Your task to perform on an android device: allow cookies in the chrome app Image 0: 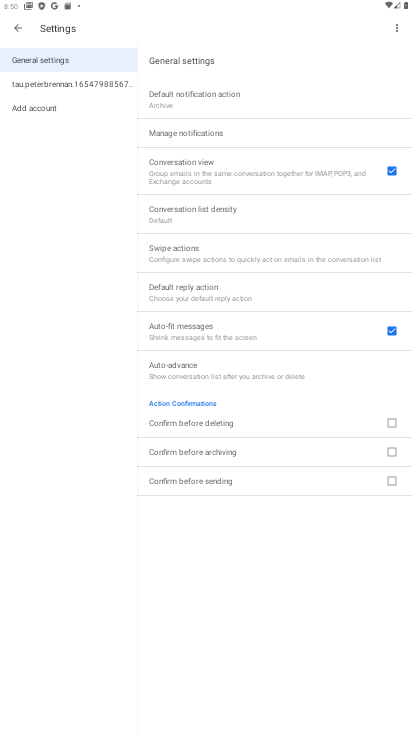
Step 0: press home button
Your task to perform on an android device: allow cookies in the chrome app Image 1: 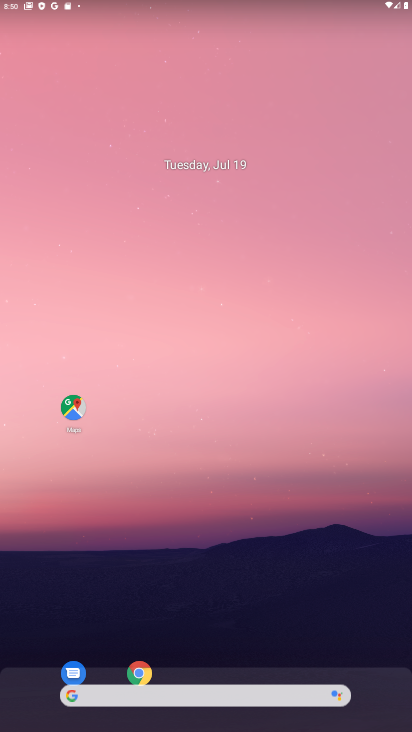
Step 1: click (144, 675)
Your task to perform on an android device: allow cookies in the chrome app Image 2: 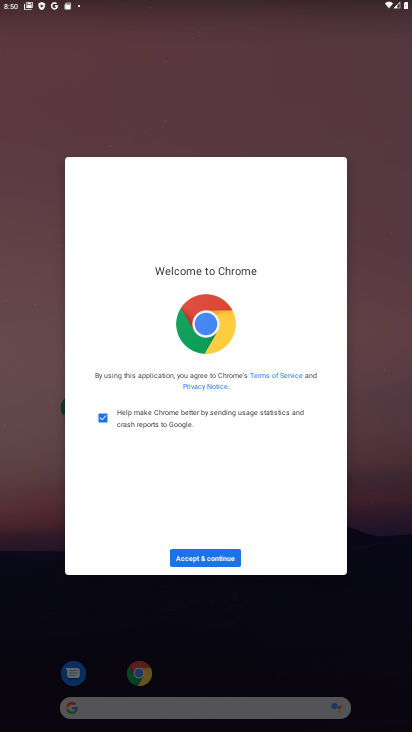
Step 2: click (179, 561)
Your task to perform on an android device: allow cookies in the chrome app Image 3: 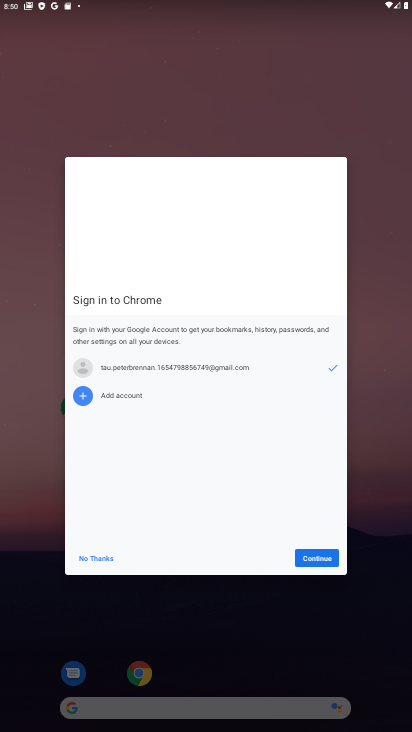
Step 3: click (324, 557)
Your task to perform on an android device: allow cookies in the chrome app Image 4: 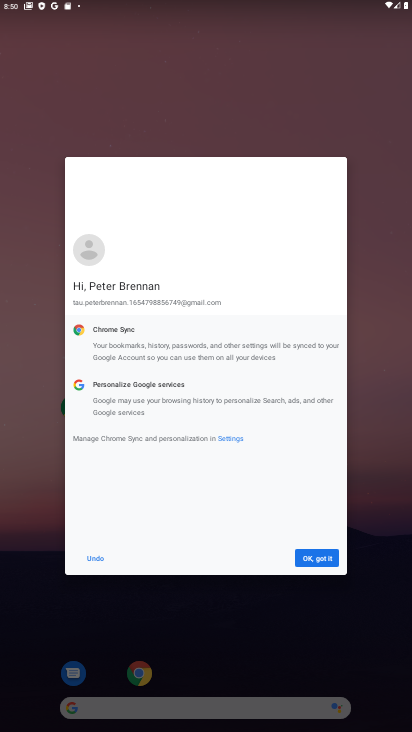
Step 4: click (324, 557)
Your task to perform on an android device: allow cookies in the chrome app Image 5: 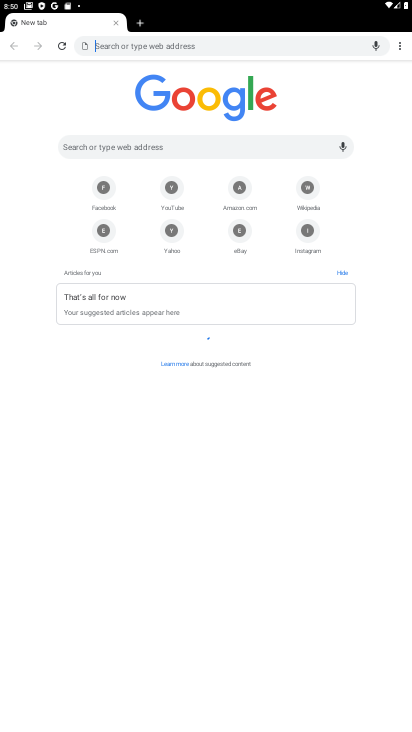
Step 5: click (401, 47)
Your task to perform on an android device: allow cookies in the chrome app Image 6: 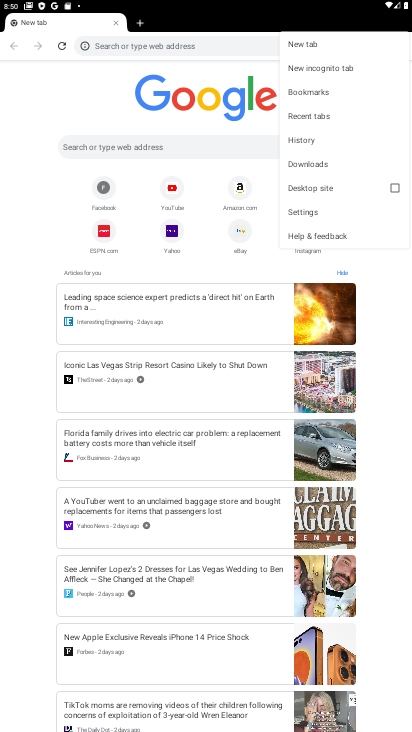
Step 6: click (339, 211)
Your task to perform on an android device: allow cookies in the chrome app Image 7: 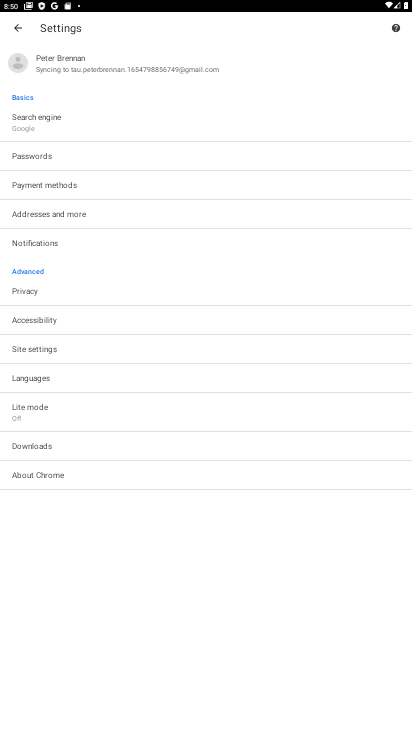
Step 7: click (84, 346)
Your task to perform on an android device: allow cookies in the chrome app Image 8: 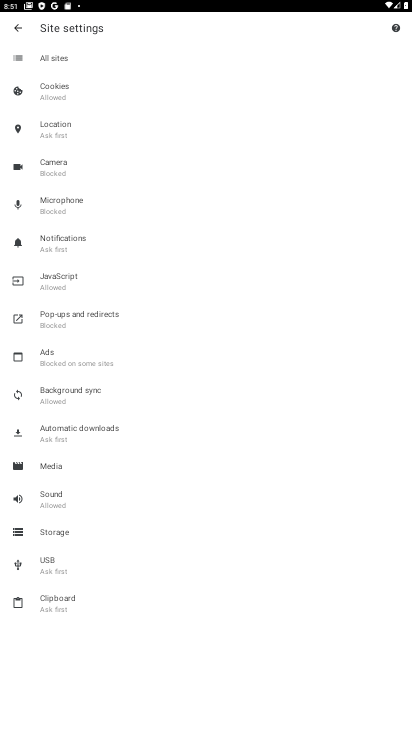
Step 8: click (82, 79)
Your task to perform on an android device: allow cookies in the chrome app Image 9: 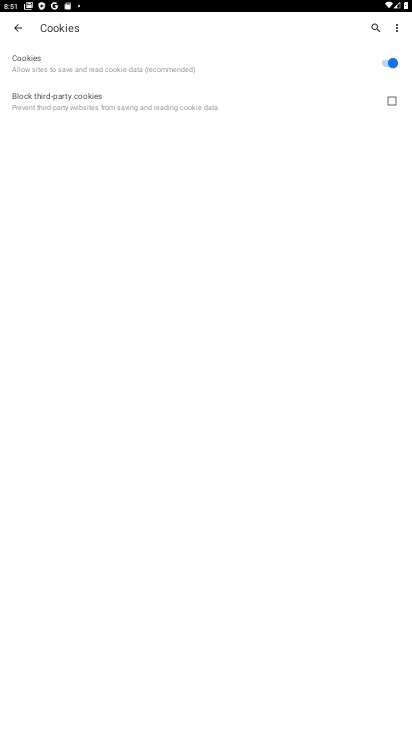
Step 9: task complete